Your task to perform on an android device: change the clock display to show seconds Image 0: 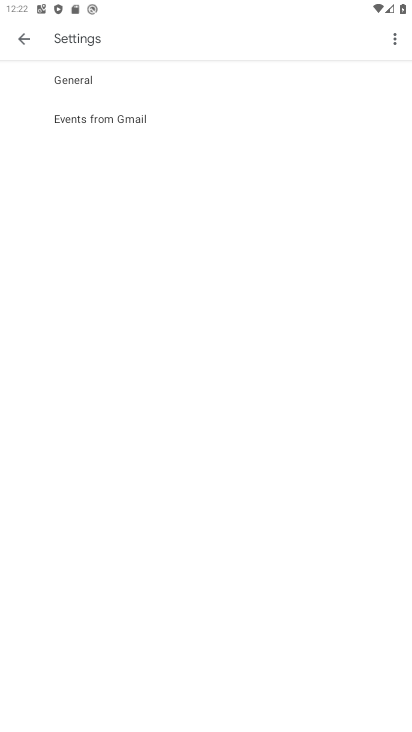
Step 0: press home button
Your task to perform on an android device: change the clock display to show seconds Image 1: 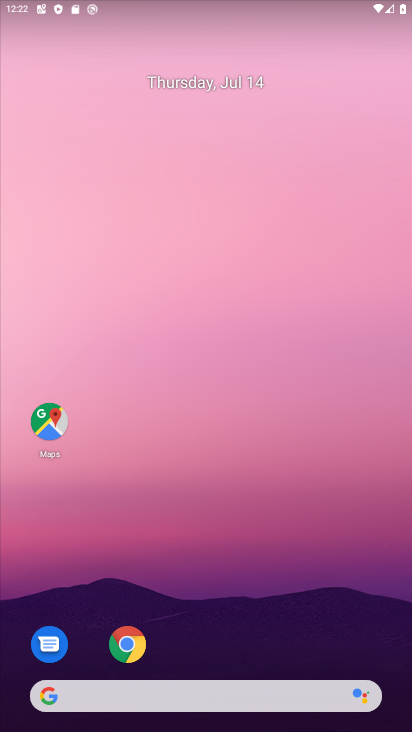
Step 1: drag from (265, 651) to (221, 11)
Your task to perform on an android device: change the clock display to show seconds Image 2: 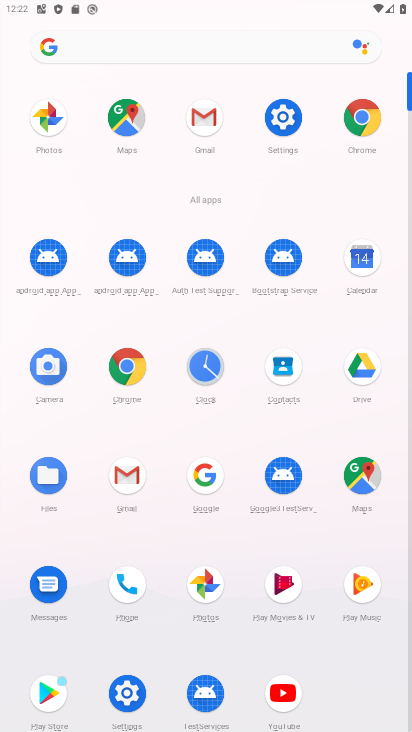
Step 2: click (211, 380)
Your task to perform on an android device: change the clock display to show seconds Image 3: 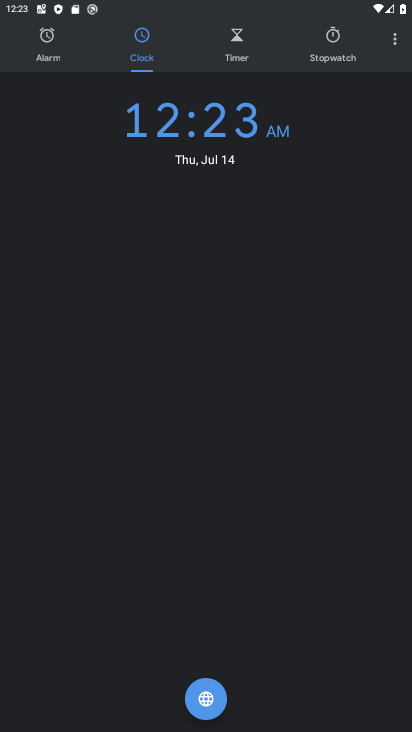
Step 3: click (388, 45)
Your task to perform on an android device: change the clock display to show seconds Image 4: 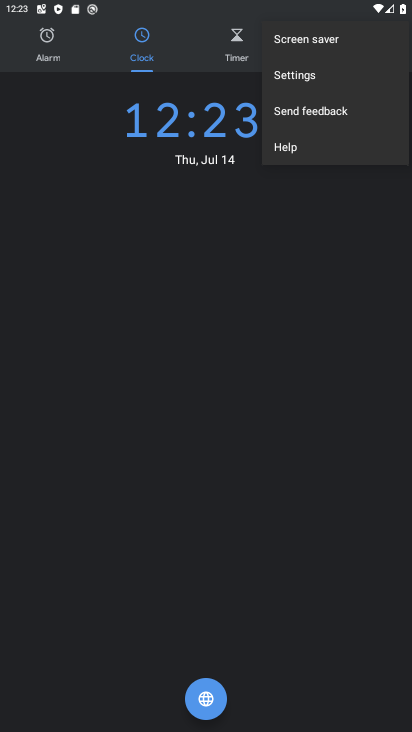
Step 4: click (336, 78)
Your task to perform on an android device: change the clock display to show seconds Image 5: 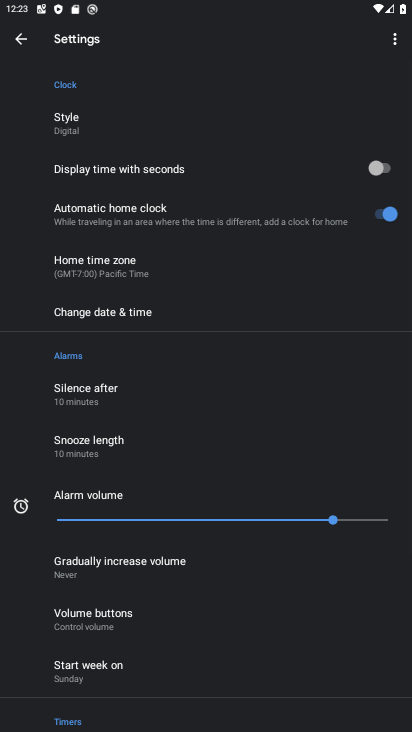
Step 5: click (386, 164)
Your task to perform on an android device: change the clock display to show seconds Image 6: 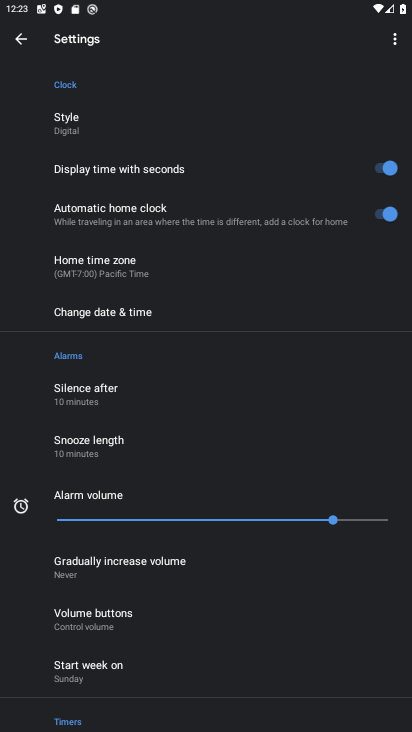
Step 6: task complete